Your task to perform on an android device: Go to eBay Image 0: 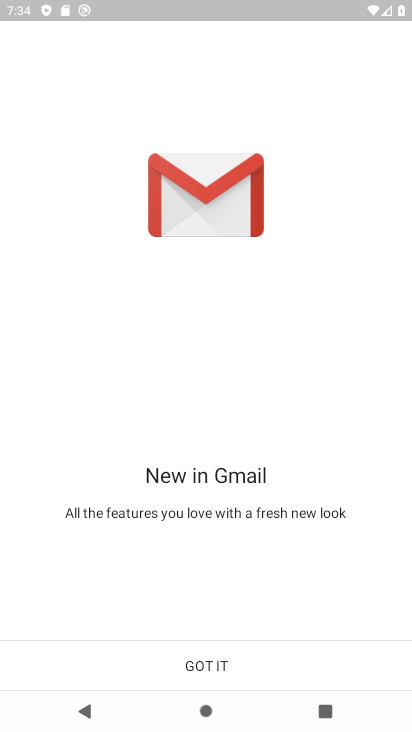
Step 0: press home button
Your task to perform on an android device: Go to eBay Image 1: 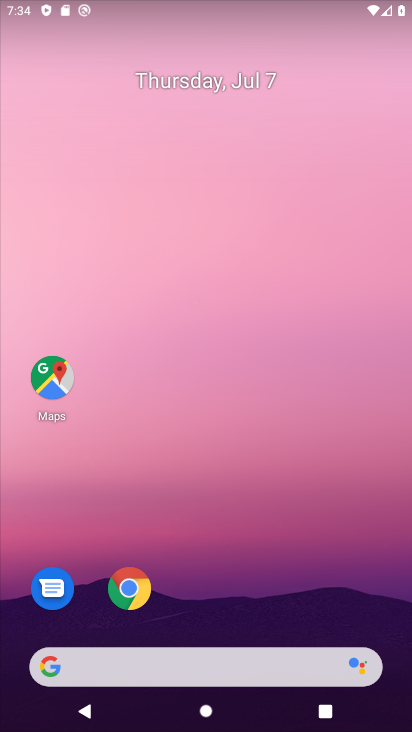
Step 1: drag from (243, 462) to (246, 280)
Your task to perform on an android device: Go to eBay Image 2: 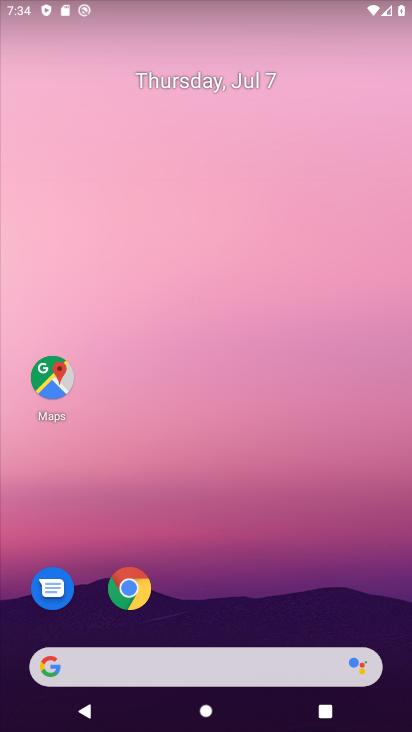
Step 2: drag from (300, 659) to (298, 399)
Your task to perform on an android device: Go to eBay Image 3: 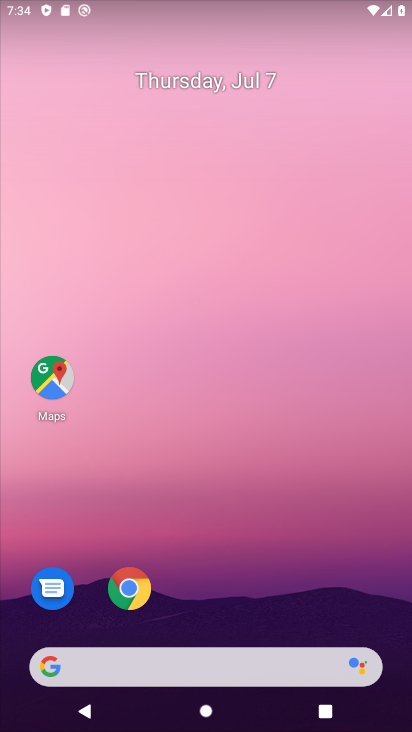
Step 3: drag from (332, 609) to (317, 299)
Your task to perform on an android device: Go to eBay Image 4: 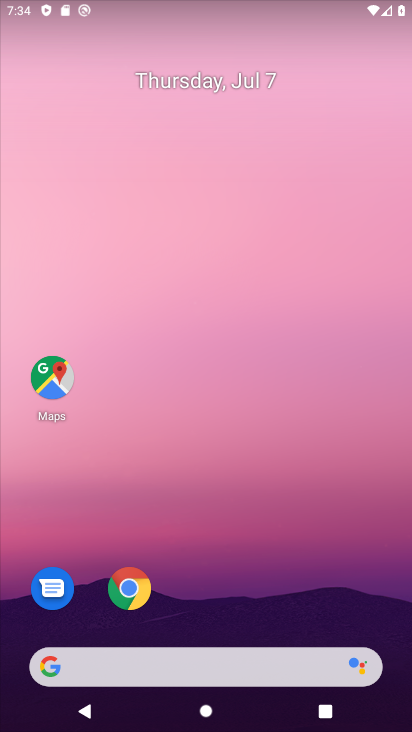
Step 4: drag from (244, 661) to (299, 68)
Your task to perform on an android device: Go to eBay Image 5: 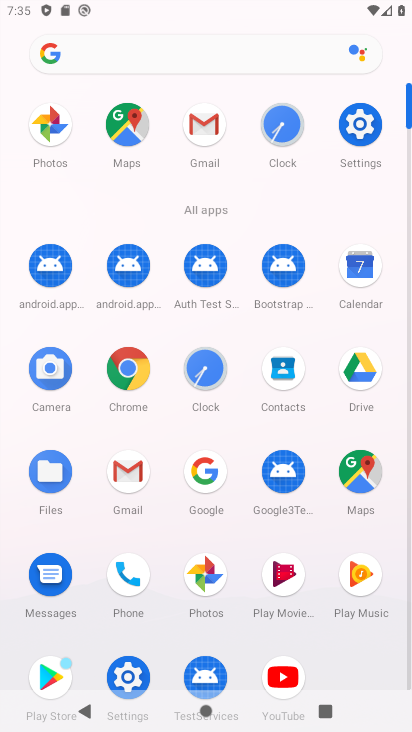
Step 5: click (144, 372)
Your task to perform on an android device: Go to eBay Image 6: 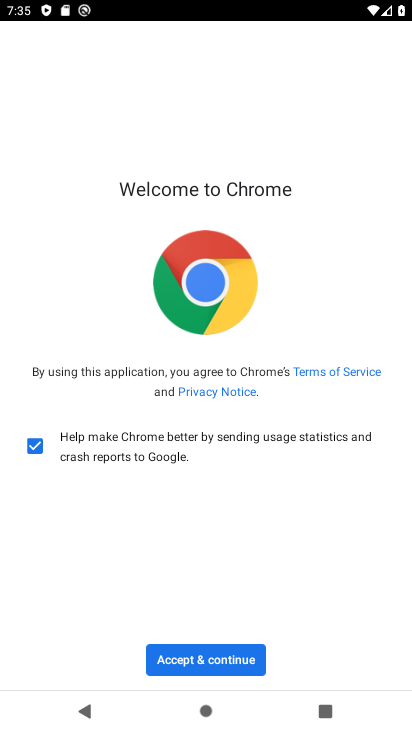
Step 6: click (242, 636)
Your task to perform on an android device: Go to eBay Image 7: 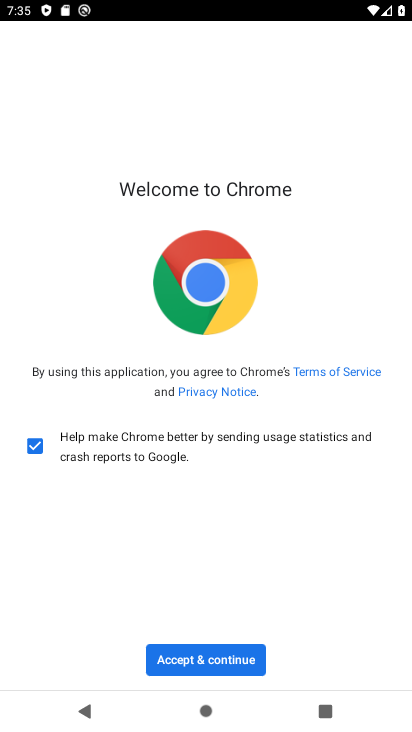
Step 7: click (240, 651)
Your task to perform on an android device: Go to eBay Image 8: 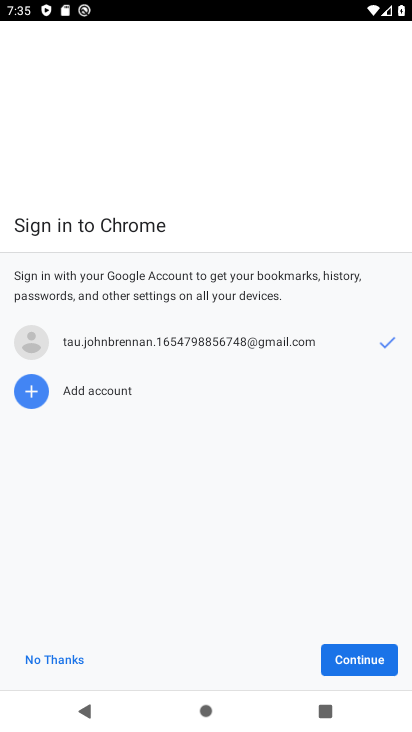
Step 8: click (341, 656)
Your task to perform on an android device: Go to eBay Image 9: 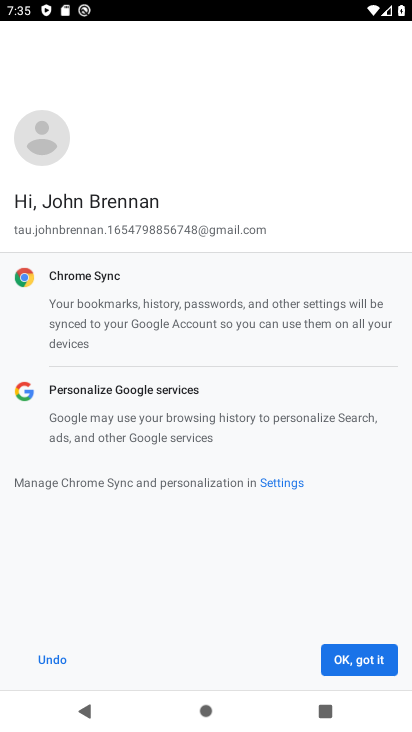
Step 9: click (341, 656)
Your task to perform on an android device: Go to eBay Image 10: 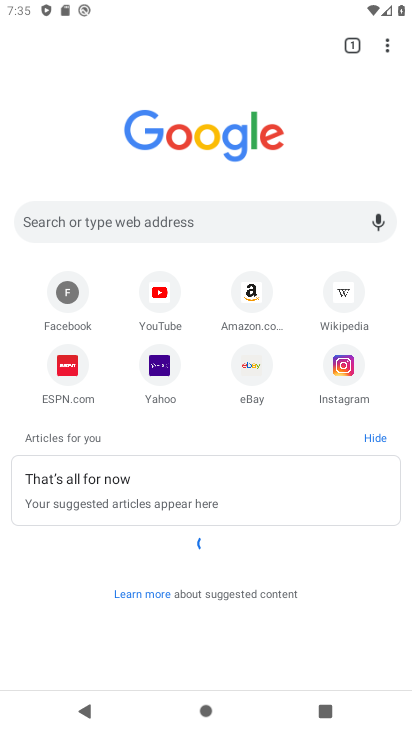
Step 10: click (253, 378)
Your task to perform on an android device: Go to eBay Image 11: 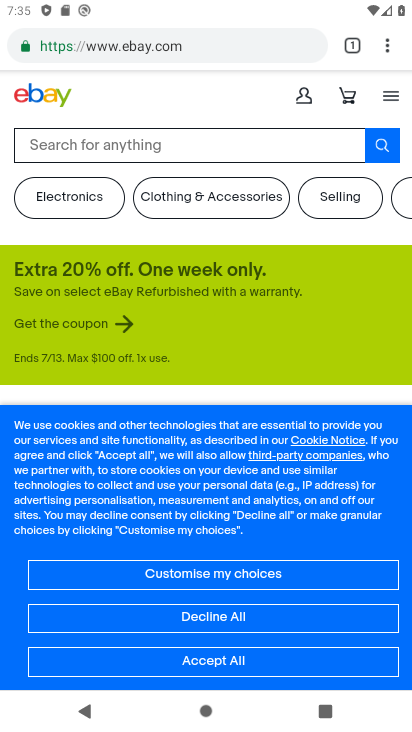
Step 11: task complete